Your task to perform on an android device: turn on data saver in the chrome app Image 0: 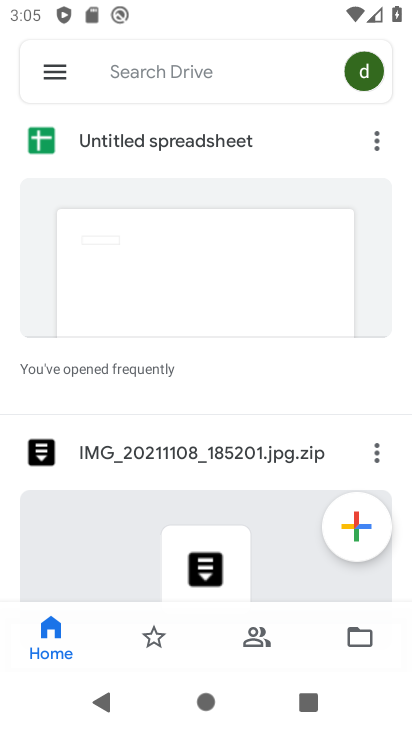
Step 0: press home button
Your task to perform on an android device: turn on data saver in the chrome app Image 1: 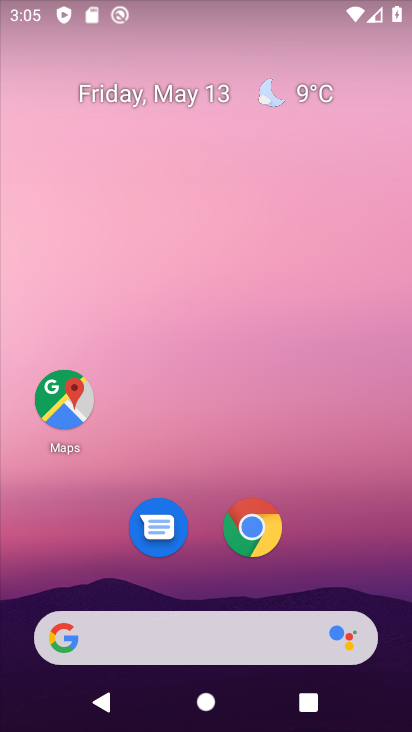
Step 1: drag from (327, 577) to (284, 214)
Your task to perform on an android device: turn on data saver in the chrome app Image 2: 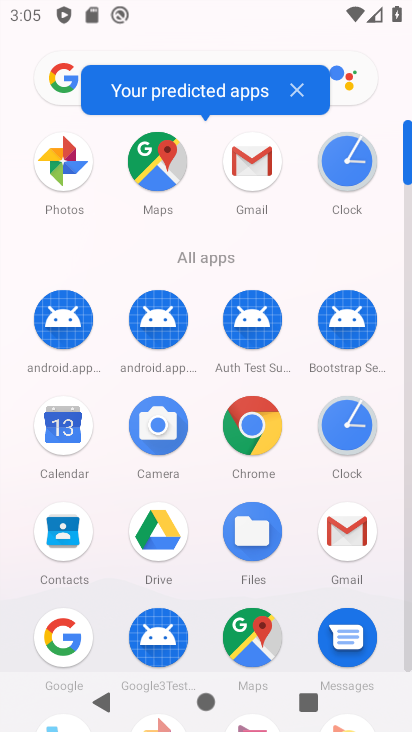
Step 2: click (228, 418)
Your task to perform on an android device: turn on data saver in the chrome app Image 3: 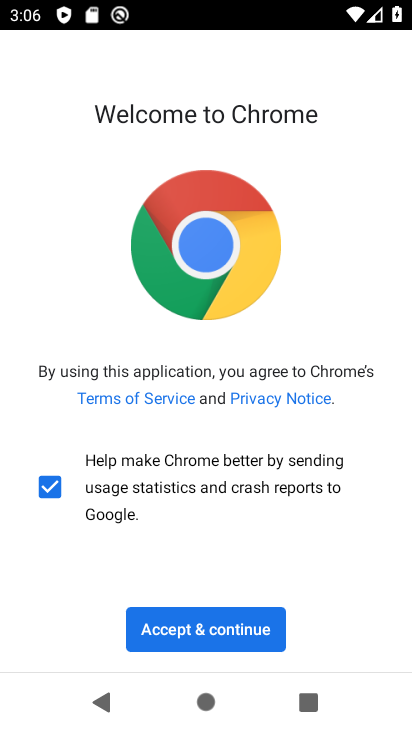
Step 3: click (196, 616)
Your task to perform on an android device: turn on data saver in the chrome app Image 4: 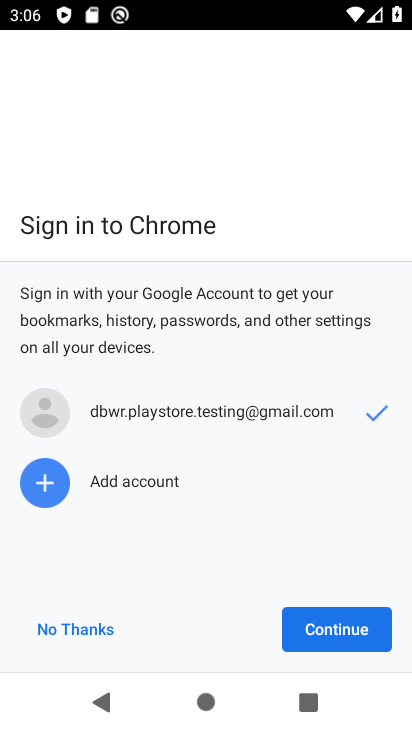
Step 4: click (342, 635)
Your task to perform on an android device: turn on data saver in the chrome app Image 5: 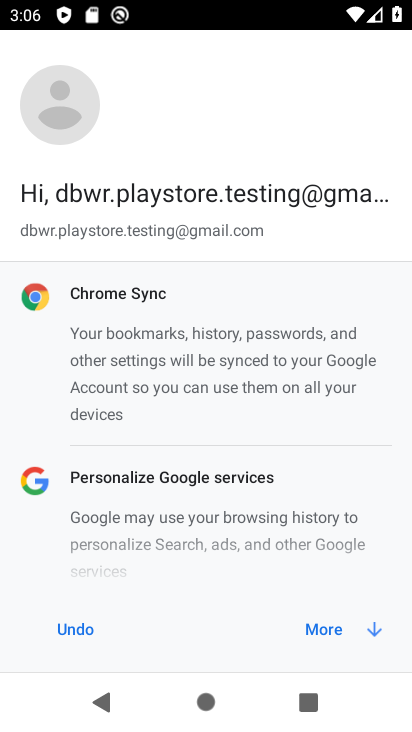
Step 5: click (328, 619)
Your task to perform on an android device: turn on data saver in the chrome app Image 6: 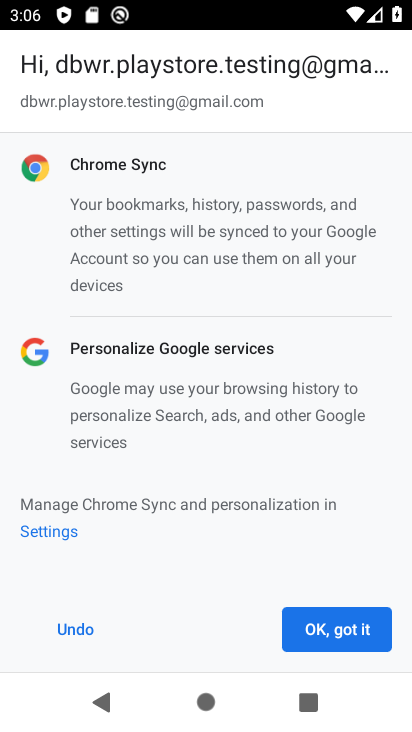
Step 6: click (311, 628)
Your task to perform on an android device: turn on data saver in the chrome app Image 7: 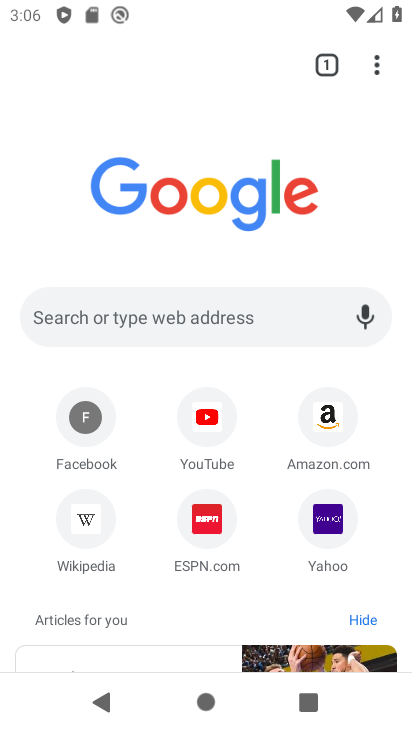
Step 7: click (377, 59)
Your task to perform on an android device: turn on data saver in the chrome app Image 8: 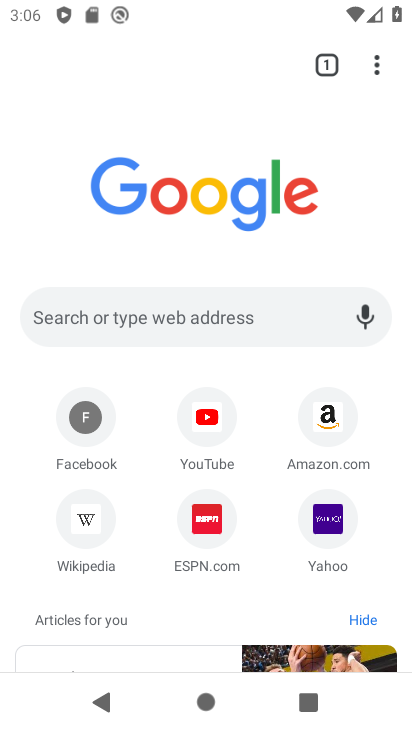
Step 8: click (366, 59)
Your task to perform on an android device: turn on data saver in the chrome app Image 9: 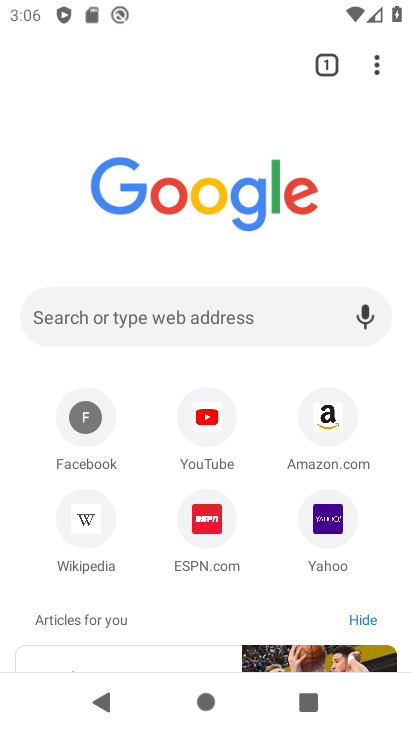
Step 9: click (369, 52)
Your task to perform on an android device: turn on data saver in the chrome app Image 10: 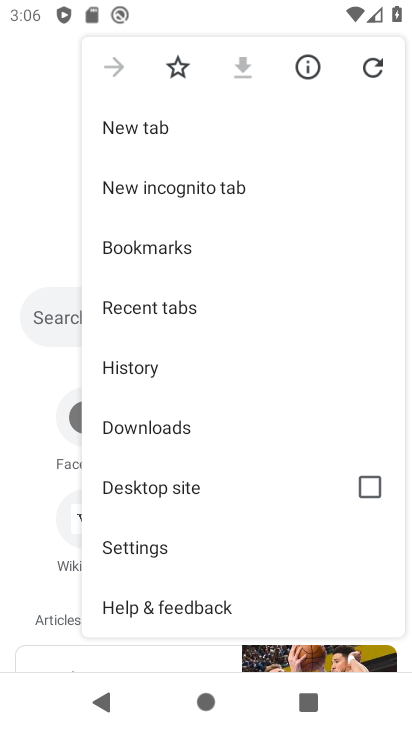
Step 10: drag from (229, 544) to (277, 193)
Your task to perform on an android device: turn on data saver in the chrome app Image 11: 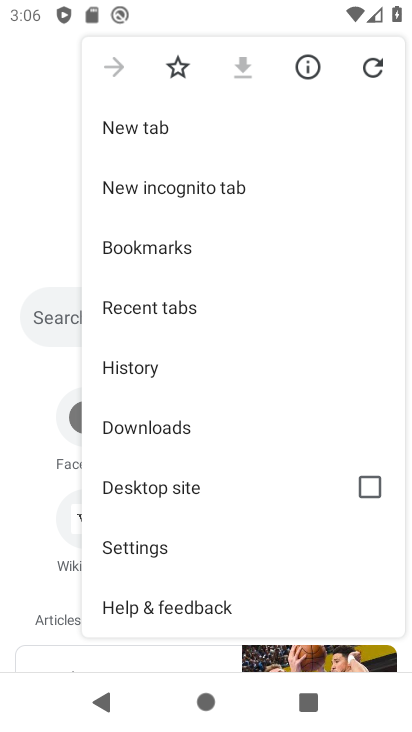
Step 11: click (186, 540)
Your task to perform on an android device: turn on data saver in the chrome app Image 12: 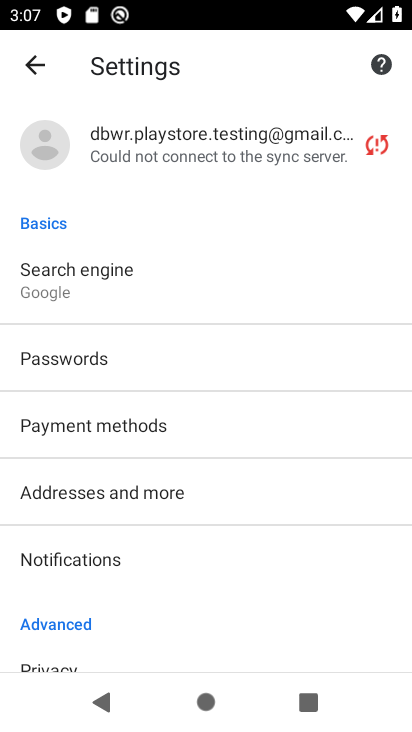
Step 12: drag from (221, 606) to (258, 167)
Your task to perform on an android device: turn on data saver in the chrome app Image 13: 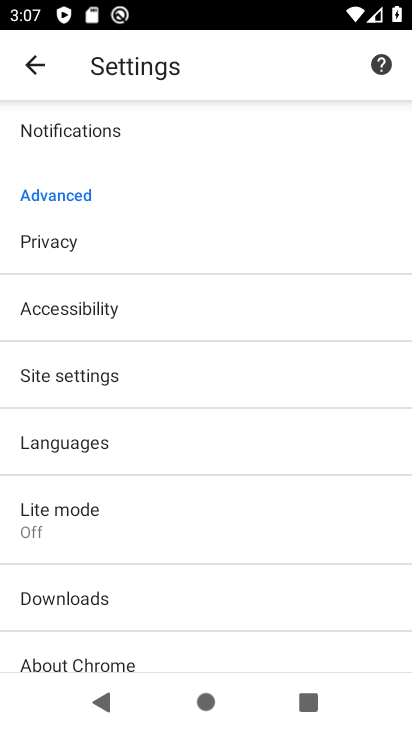
Step 13: click (215, 512)
Your task to perform on an android device: turn on data saver in the chrome app Image 14: 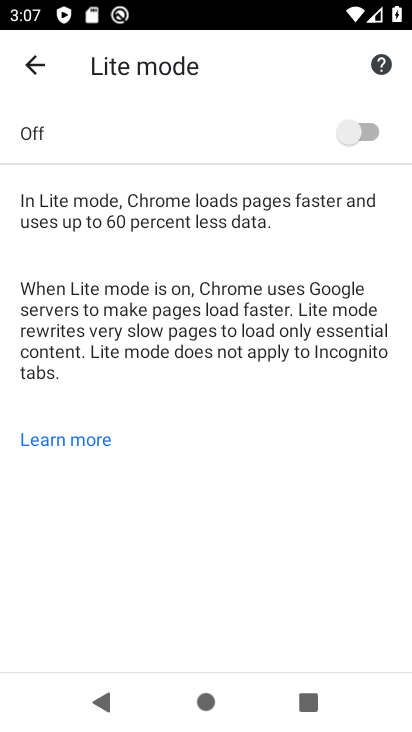
Step 14: click (344, 140)
Your task to perform on an android device: turn on data saver in the chrome app Image 15: 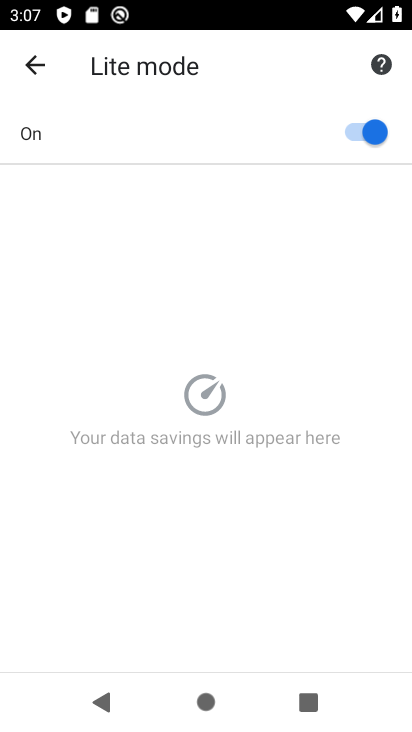
Step 15: task complete